Your task to perform on an android device: Turn on the flashlight Image 0: 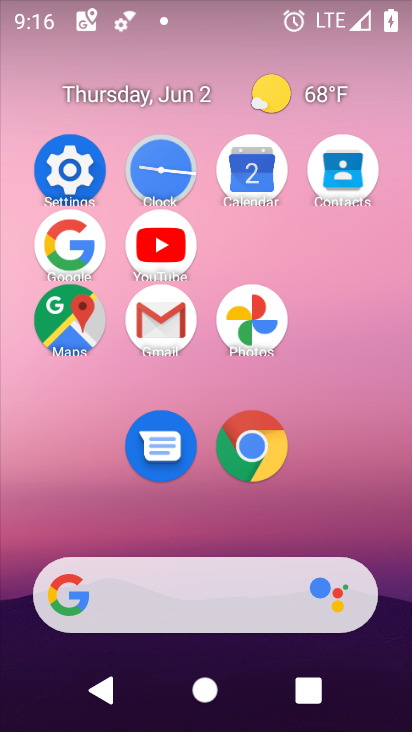
Step 0: drag from (241, 0) to (255, 398)
Your task to perform on an android device: Turn on the flashlight Image 1: 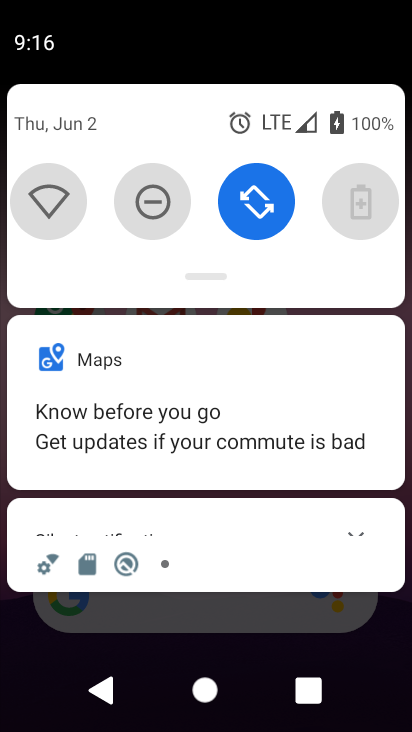
Step 1: task complete